Your task to perform on an android device: Go to Google Image 0: 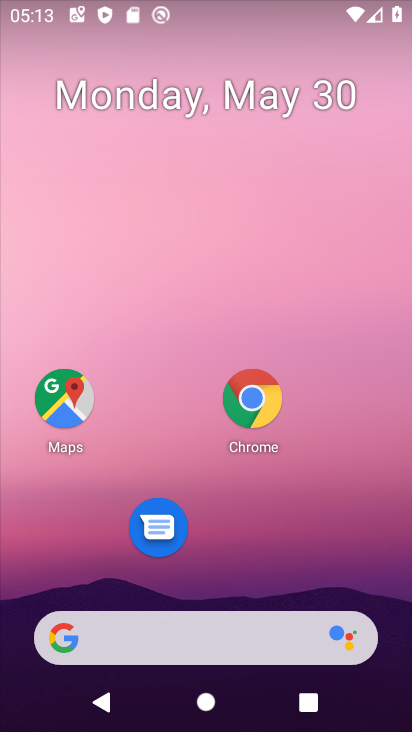
Step 0: drag from (242, 729) to (221, 50)
Your task to perform on an android device: Go to Google Image 1: 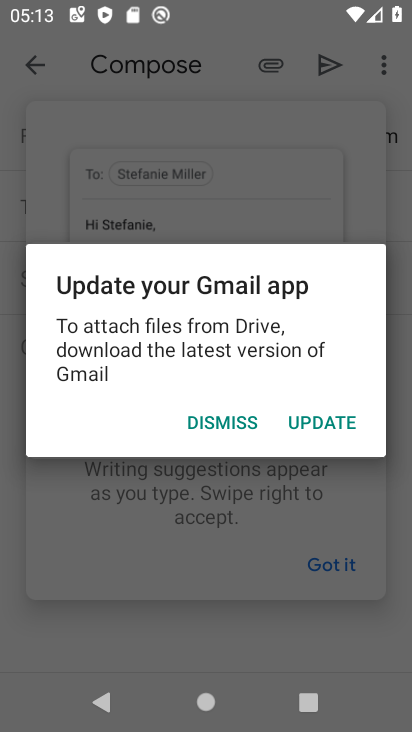
Step 1: press home button
Your task to perform on an android device: Go to Google Image 2: 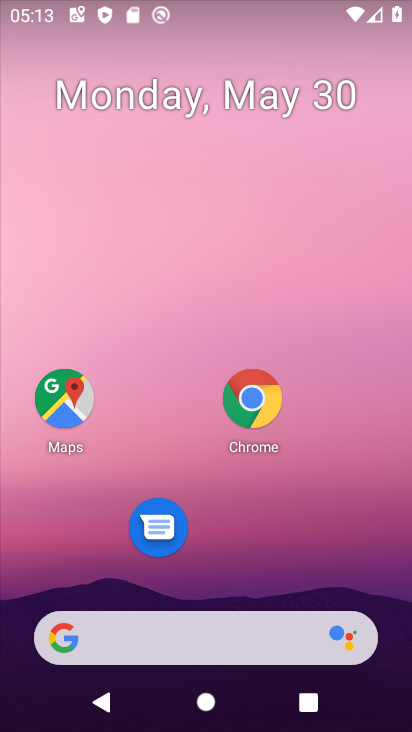
Step 2: drag from (248, 712) to (226, 156)
Your task to perform on an android device: Go to Google Image 3: 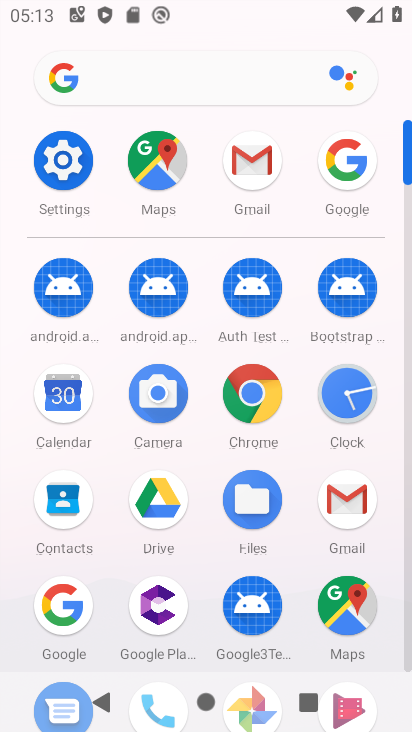
Step 3: click (60, 605)
Your task to perform on an android device: Go to Google Image 4: 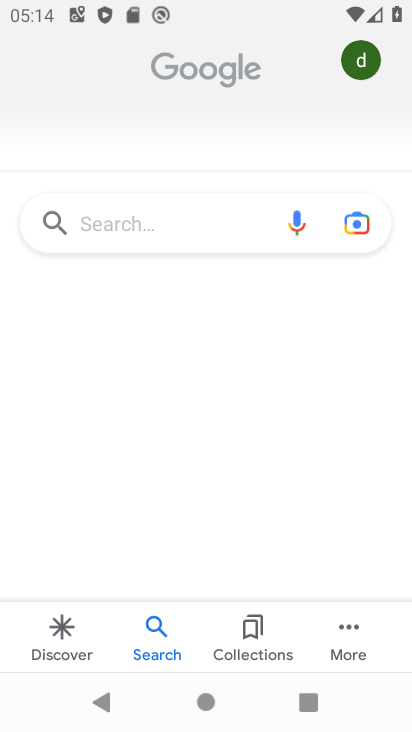
Step 4: task complete